Your task to perform on an android device: set an alarm Image 0: 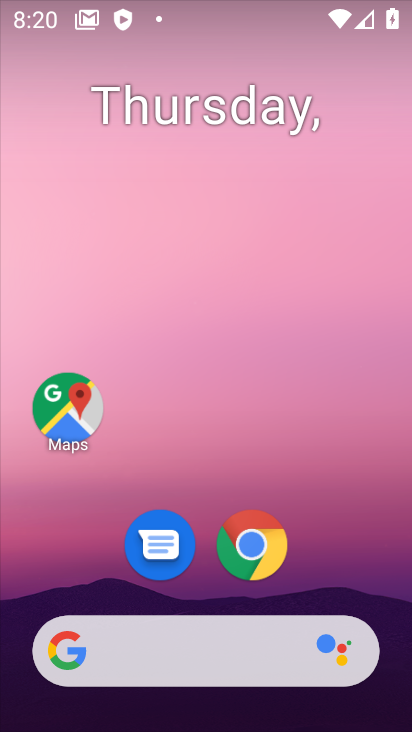
Step 0: drag from (216, 589) to (271, 1)
Your task to perform on an android device: set an alarm Image 1: 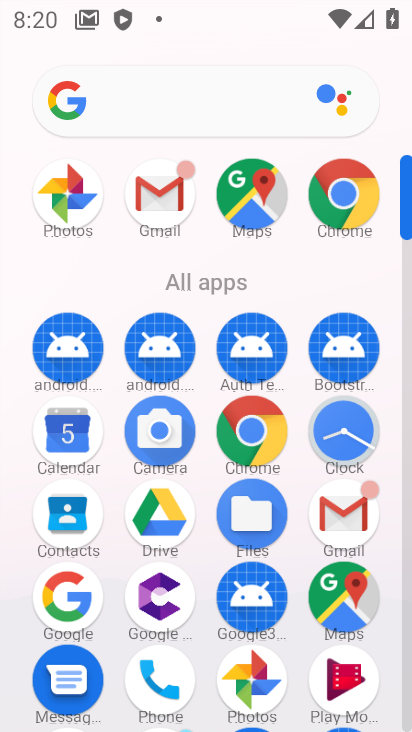
Step 1: click (334, 443)
Your task to perform on an android device: set an alarm Image 2: 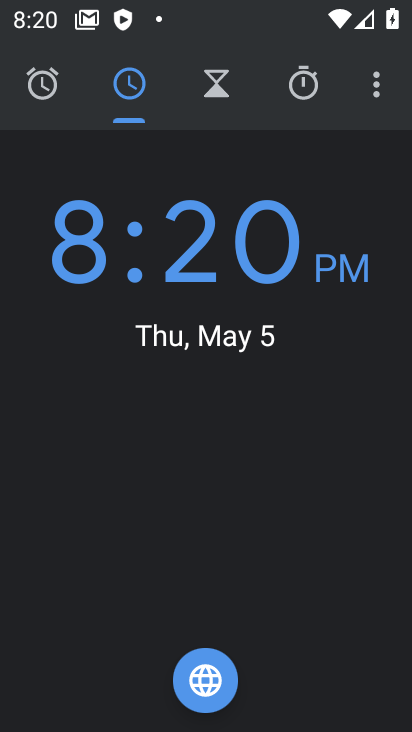
Step 2: click (357, 83)
Your task to perform on an android device: set an alarm Image 3: 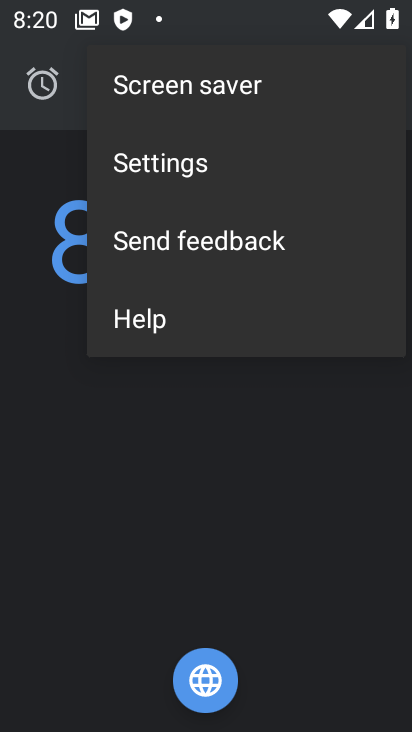
Step 3: click (88, 537)
Your task to perform on an android device: set an alarm Image 4: 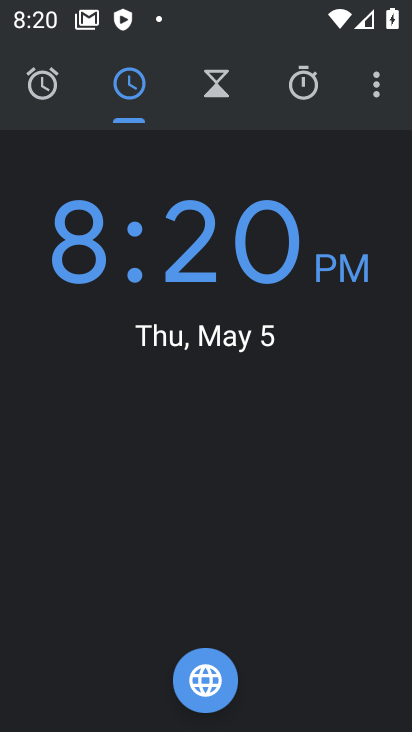
Step 4: click (36, 87)
Your task to perform on an android device: set an alarm Image 5: 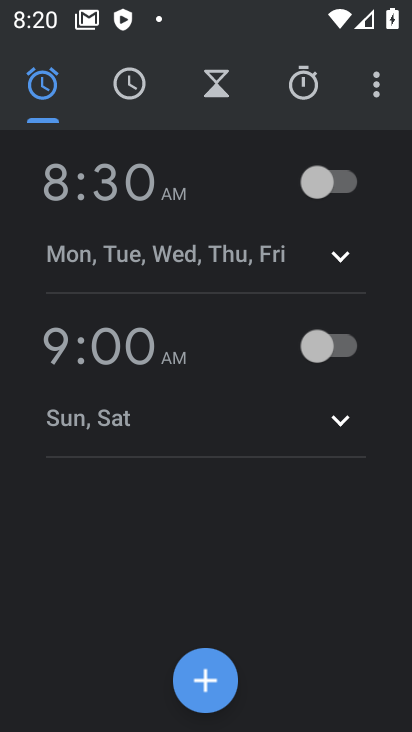
Step 5: click (351, 341)
Your task to perform on an android device: set an alarm Image 6: 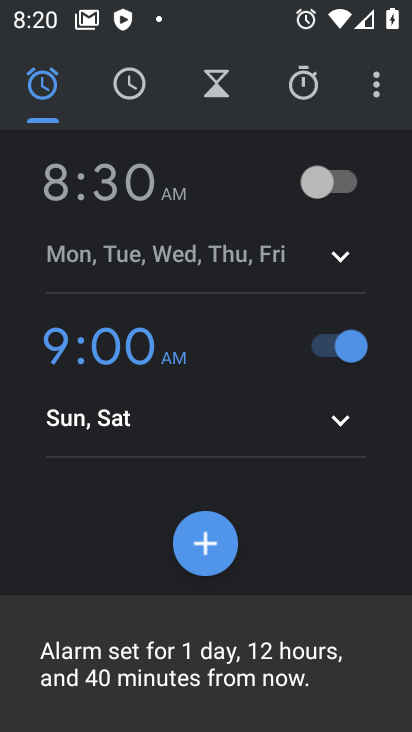
Step 6: task complete